Your task to perform on an android device: Open calendar and show me the second week of next month Image 0: 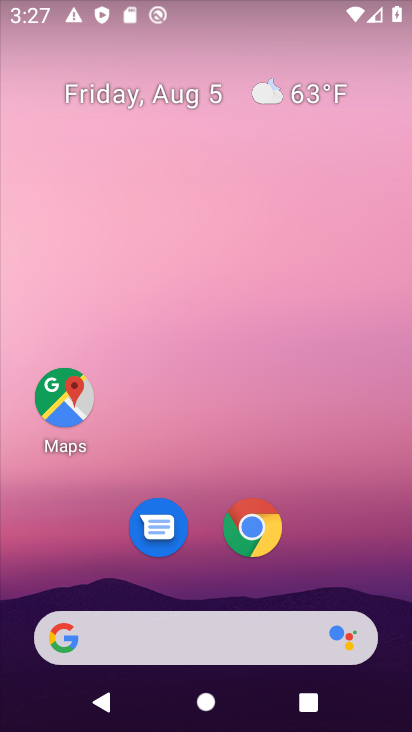
Step 0: drag from (212, 417) to (215, 137)
Your task to perform on an android device: Open calendar and show me the second week of next month Image 1: 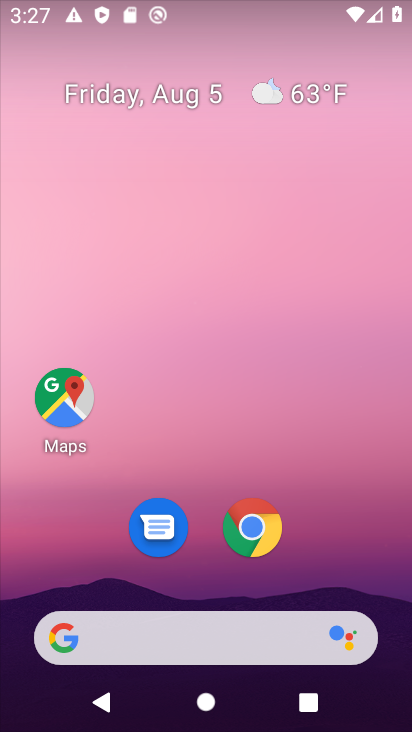
Step 1: drag from (202, 552) to (191, 78)
Your task to perform on an android device: Open calendar and show me the second week of next month Image 2: 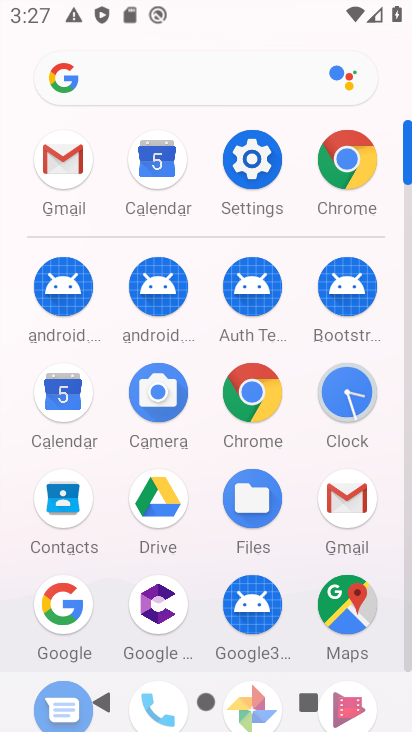
Step 2: click (68, 398)
Your task to perform on an android device: Open calendar and show me the second week of next month Image 3: 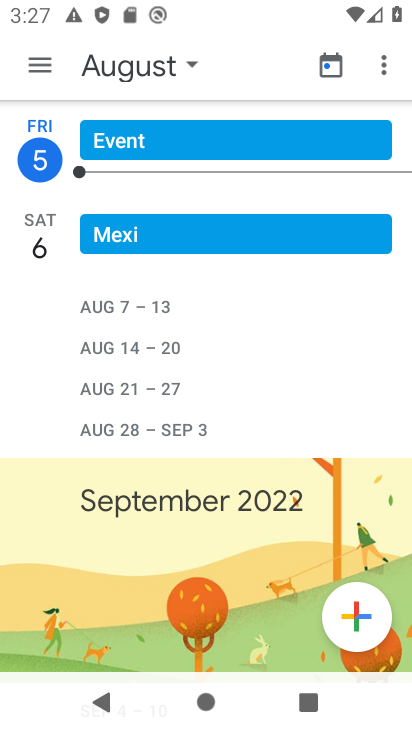
Step 3: click (147, 72)
Your task to perform on an android device: Open calendar and show me the second week of next month Image 4: 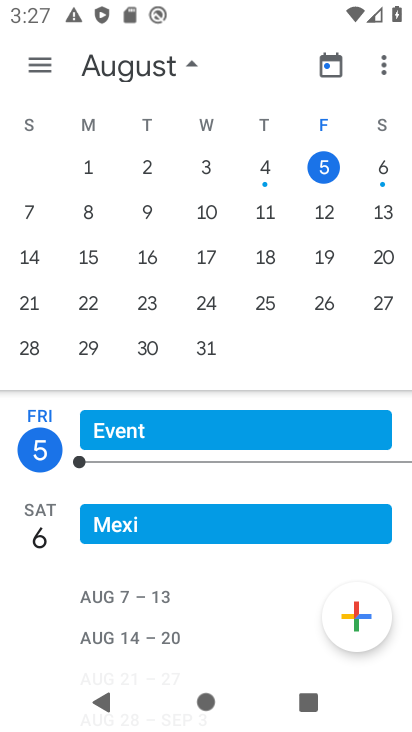
Step 4: drag from (341, 263) to (54, 300)
Your task to perform on an android device: Open calendar and show me the second week of next month Image 5: 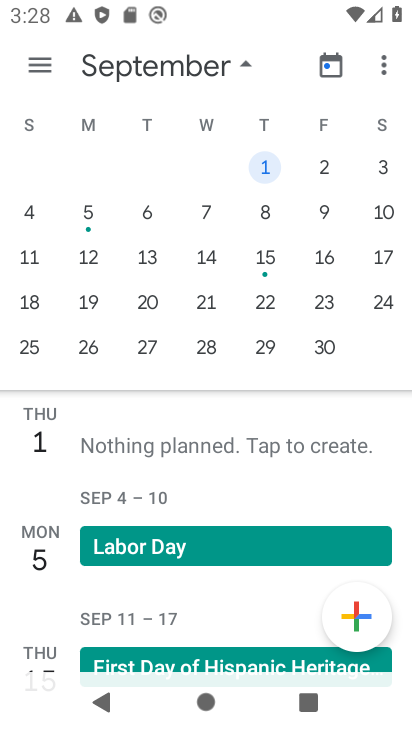
Step 5: click (345, 250)
Your task to perform on an android device: Open calendar and show me the second week of next month Image 6: 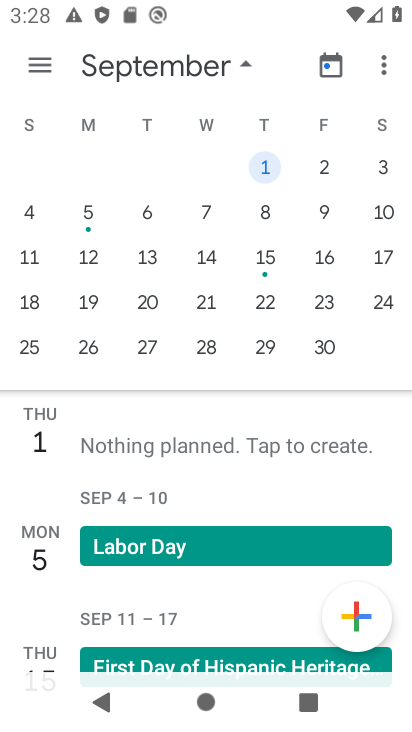
Step 6: click (89, 253)
Your task to perform on an android device: Open calendar and show me the second week of next month Image 7: 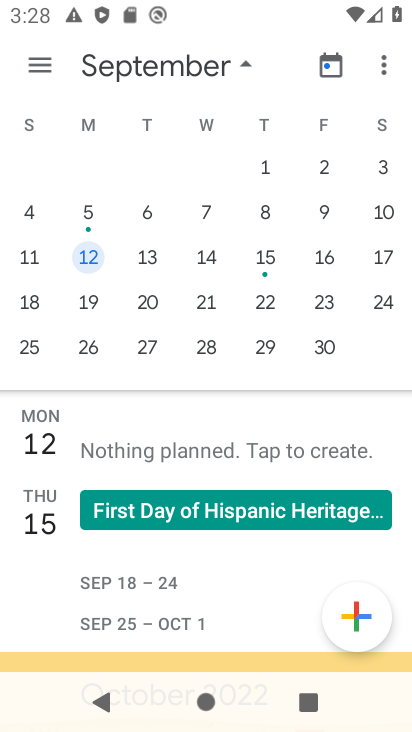
Step 7: click (88, 252)
Your task to perform on an android device: Open calendar and show me the second week of next month Image 8: 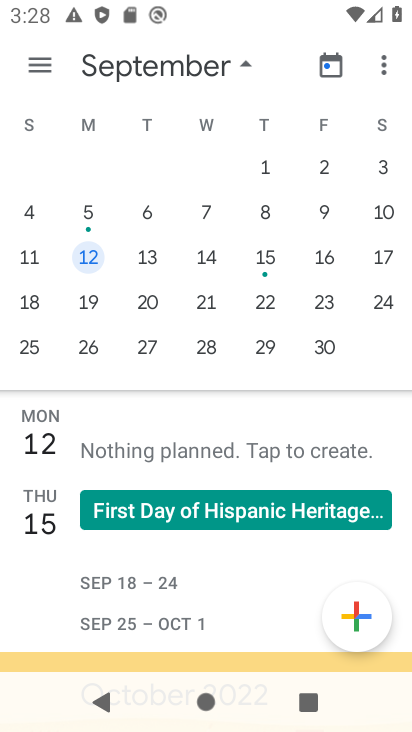
Step 8: click (38, 57)
Your task to perform on an android device: Open calendar and show me the second week of next month Image 9: 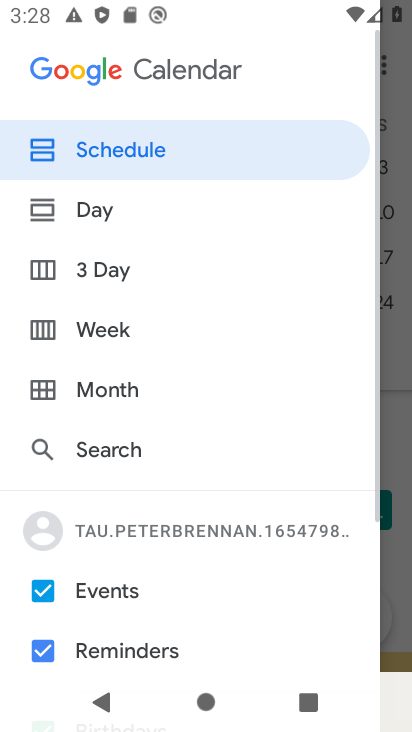
Step 9: click (115, 330)
Your task to perform on an android device: Open calendar and show me the second week of next month Image 10: 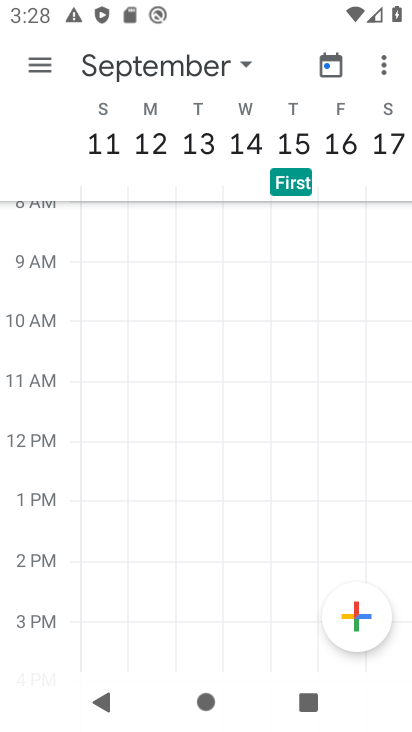
Step 10: task complete